Your task to perform on an android device: toggle wifi Image 0: 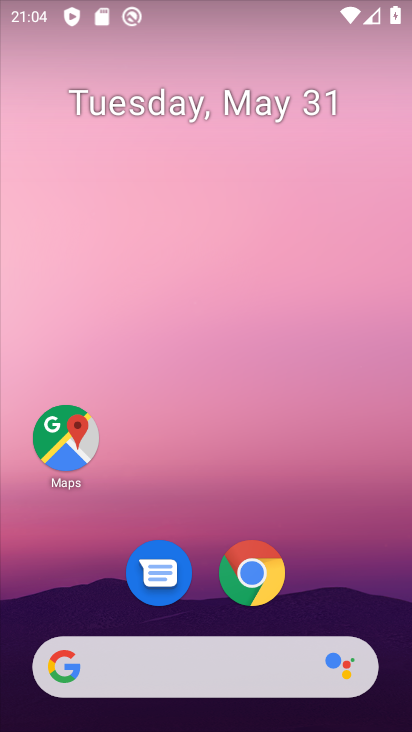
Step 0: drag from (343, 526) to (341, 147)
Your task to perform on an android device: toggle wifi Image 1: 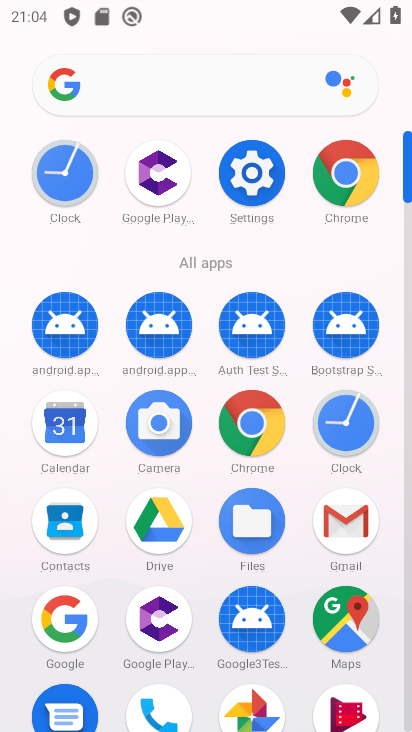
Step 1: click (261, 177)
Your task to perform on an android device: toggle wifi Image 2: 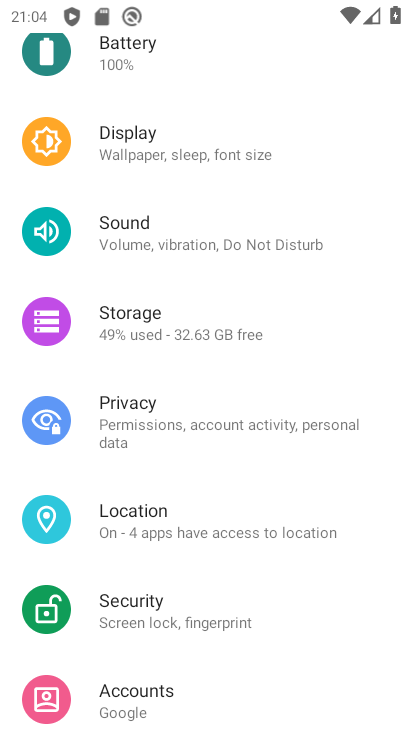
Step 2: drag from (254, 212) to (236, 661)
Your task to perform on an android device: toggle wifi Image 3: 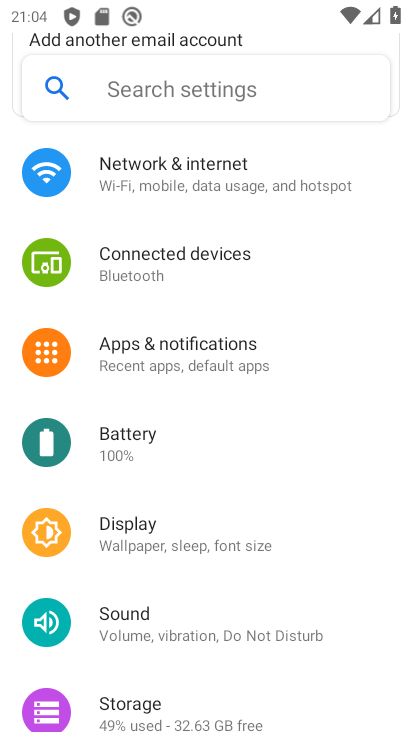
Step 3: drag from (244, 233) to (231, 490)
Your task to perform on an android device: toggle wifi Image 4: 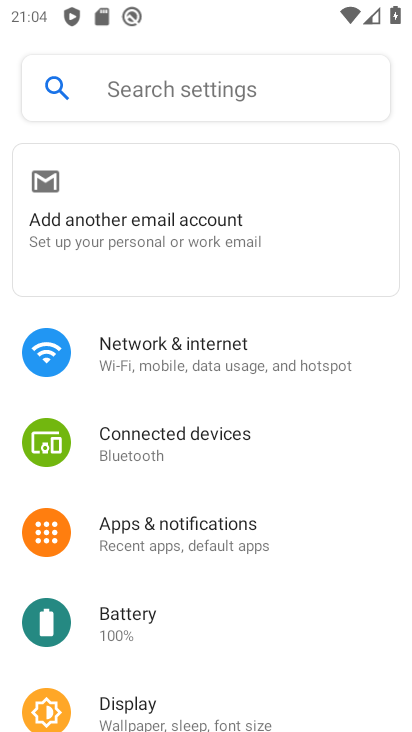
Step 4: click (201, 375)
Your task to perform on an android device: toggle wifi Image 5: 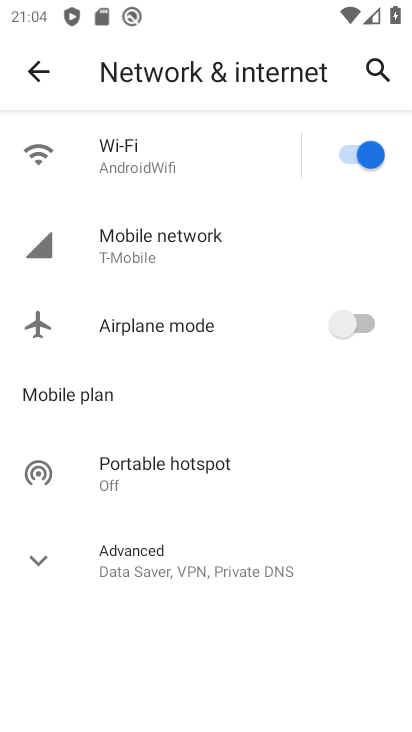
Step 5: click (359, 143)
Your task to perform on an android device: toggle wifi Image 6: 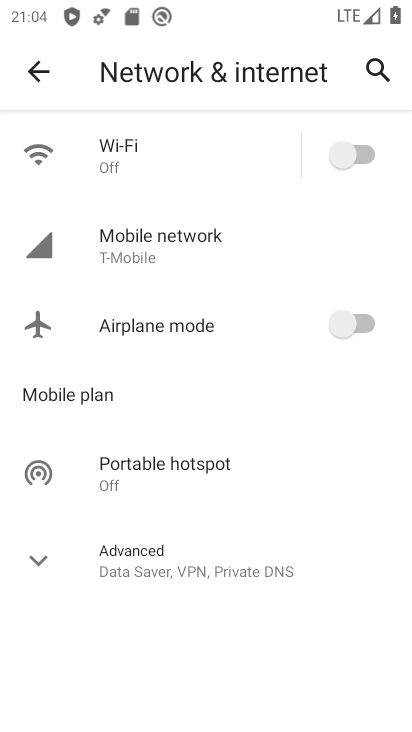
Step 6: task complete